Your task to perform on an android device: see sites visited before in the chrome app Image 0: 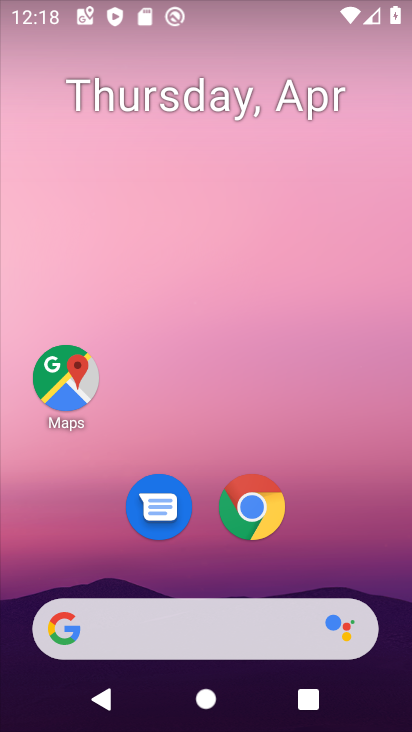
Step 0: click (254, 501)
Your task to perform on an android device: see sites visited before in the chrome app Image 1: 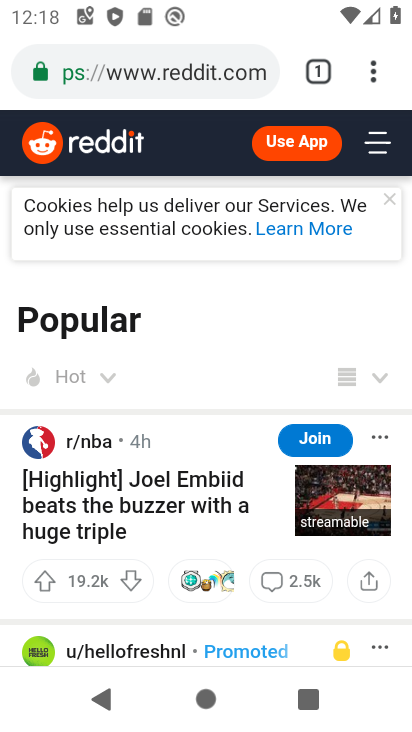
Step 1: click (375, 72)
Your task to perform on an android device: see sites visited before in the chrome app Image 2: 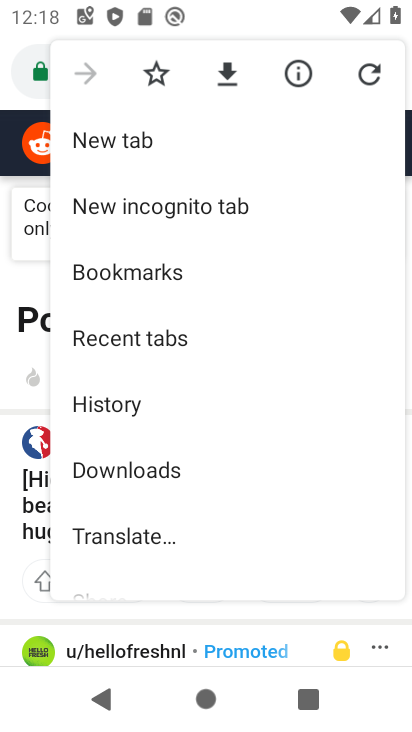
Step 2: click (129, 404)
Your task to perform on an android device: see sites visited before in the chrome app Image 3: 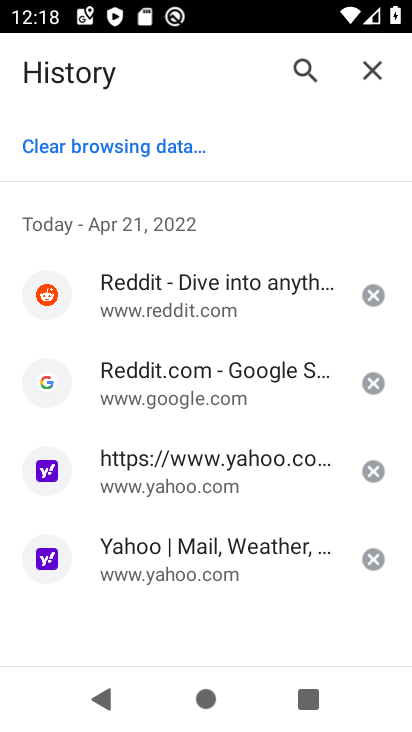
Step 3: task complete